Your task to perform on an android device: open wifi settings Image 0: 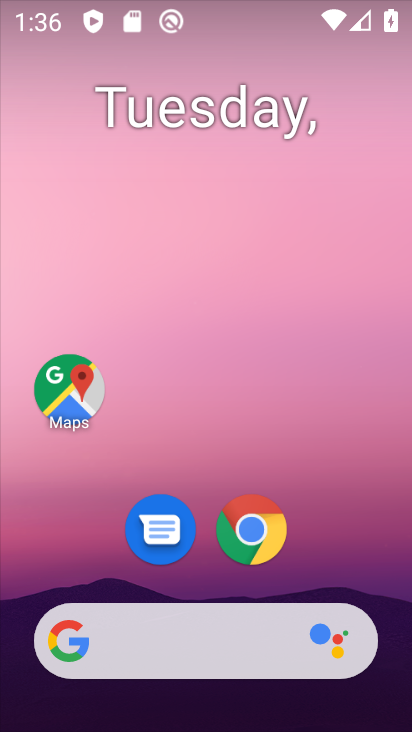
Step 0: drag from (390, 613) to (234, 70)
Your task to perform on an android device: open wifi settings Image 1: 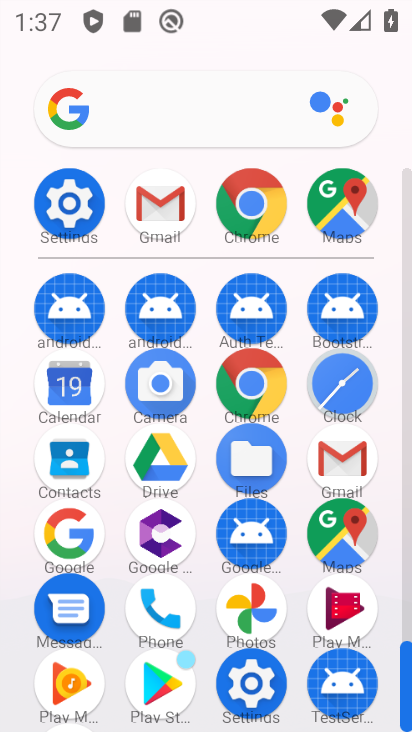
Step 1: click (61, 212)
Your task to perform on an android device: open wifi settings Image 2: 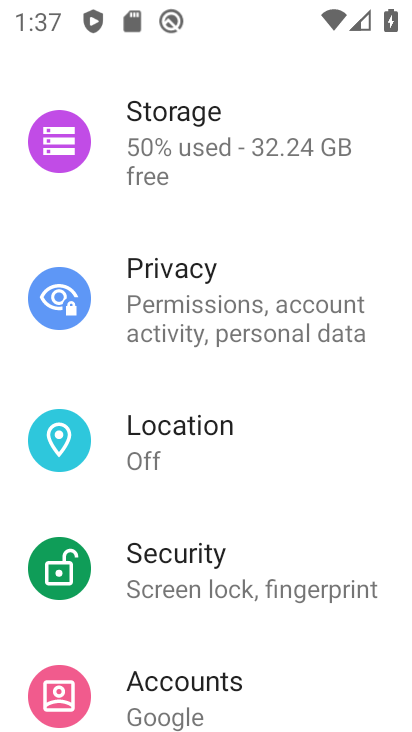
Step 2: drag from (139, 167) to (183, 648)
Your task to perform on an android device: open wifi settings Image 3: 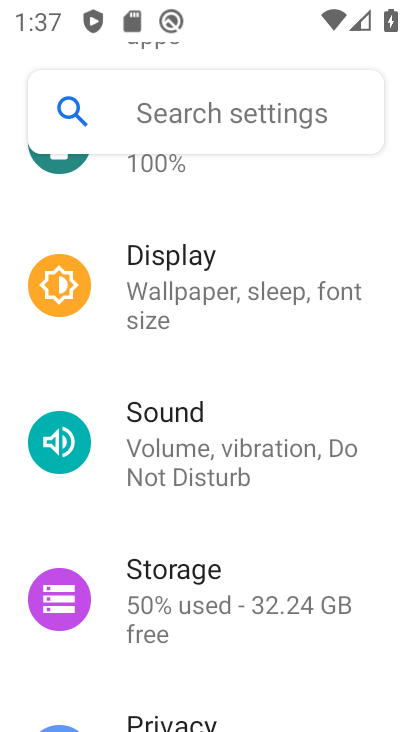
Step 3: drag from (166, 213) to (159, 687)
Your task to perform on an android device: open wifi settings Image 4: 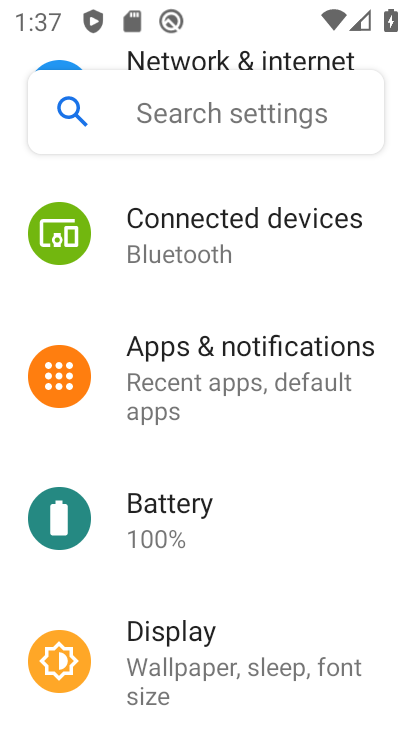
Step 4: drag from (136, 287) to (170, 725)
Your task to perform on an android device: open wifi settings Image 5: 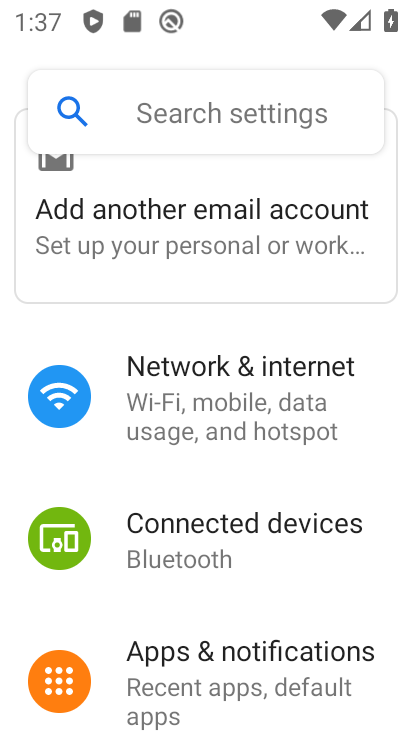
Step 5: click (180, 376)
Your task to perform on an android device: open wifi settings Image 6: 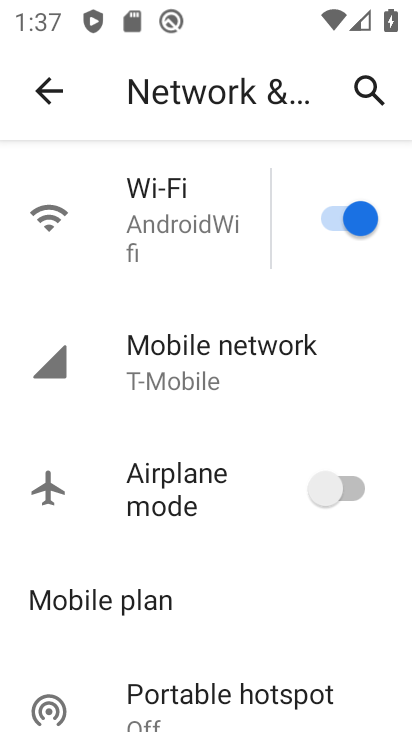
Step 6: click (174, 202)
Your task to perform on an android device: open wifi settings Image 7: 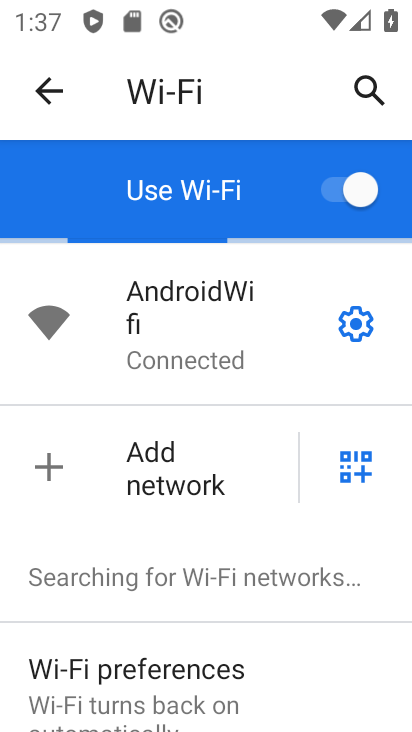
Step 7: task complete